Your task to perform on an android device: What's the weather going to be tomorrow? Image 0: 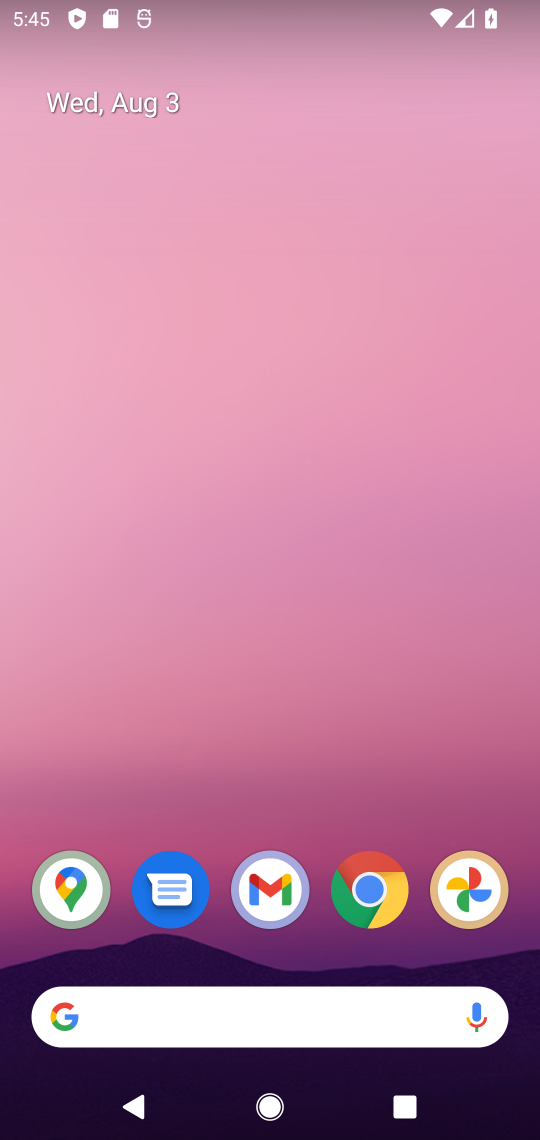
Step 0: drag from (274, 798) to (369, 11)
Your task to perform on an android device: What's the weather going to be tomorrow? Image 1: 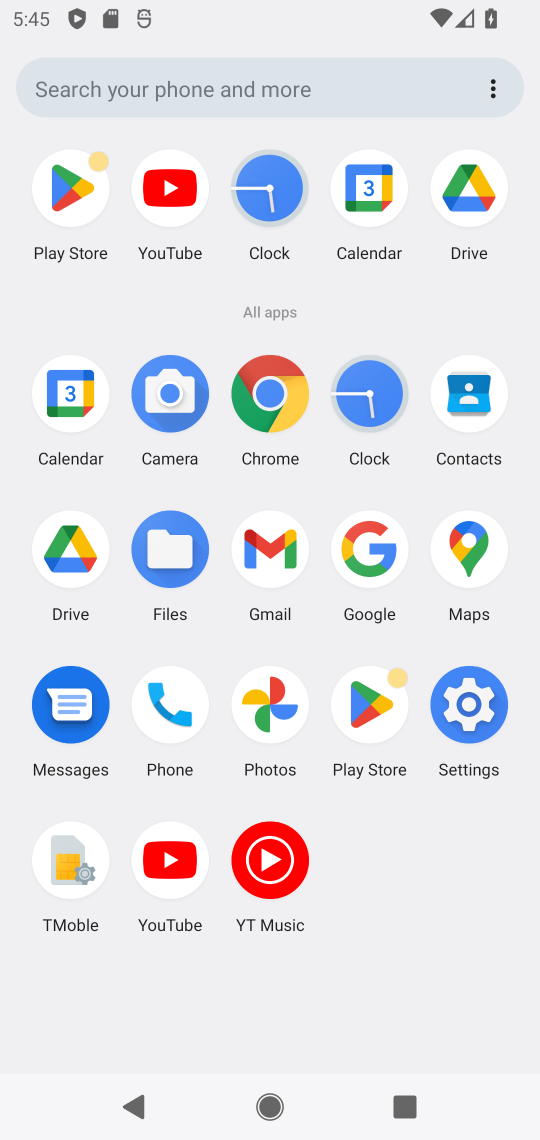
Step 1: click (357, 547)
Your task to perform on an android device: What's the weather going to be tomorrow? Image 2: 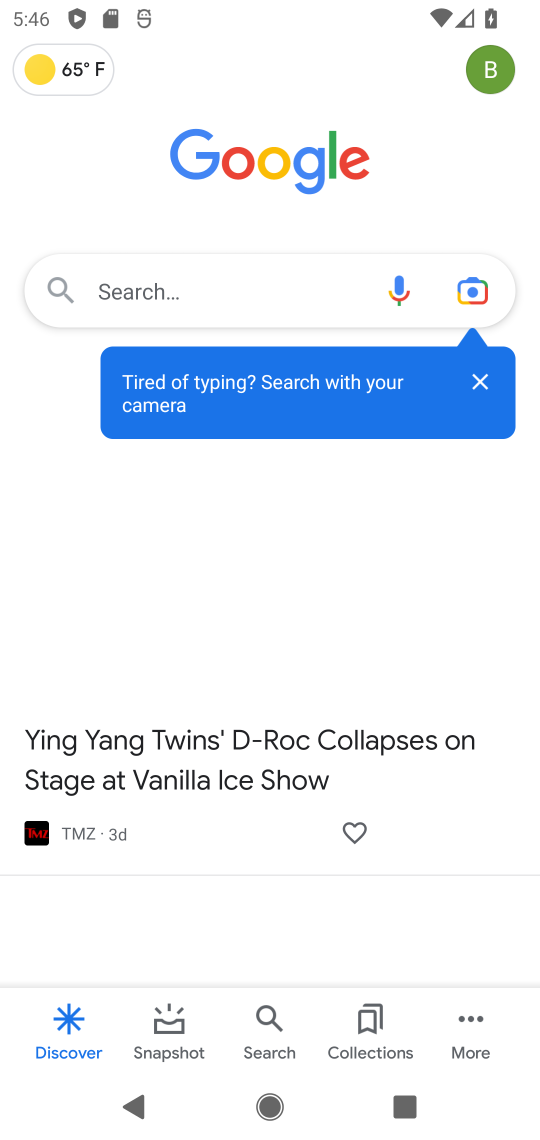
Step 2: click (237, 288)
Your task to perform on an android device: What's the weather going to be tomorrow? Image 3: 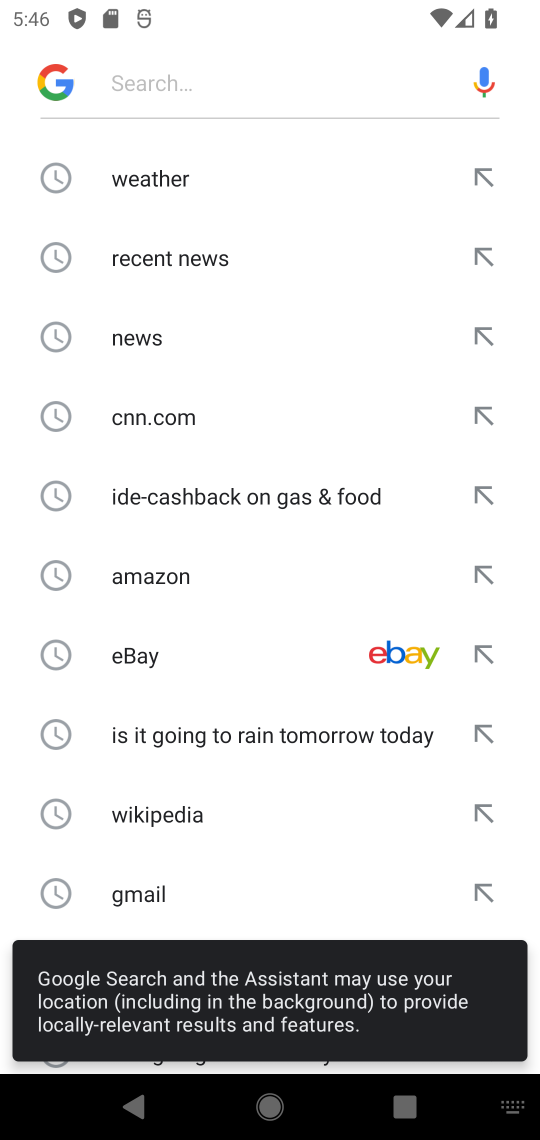
Step 3: click (156, 175)
Your task to perform on an android device: What's the weather going to be tomorrow? Image 4: 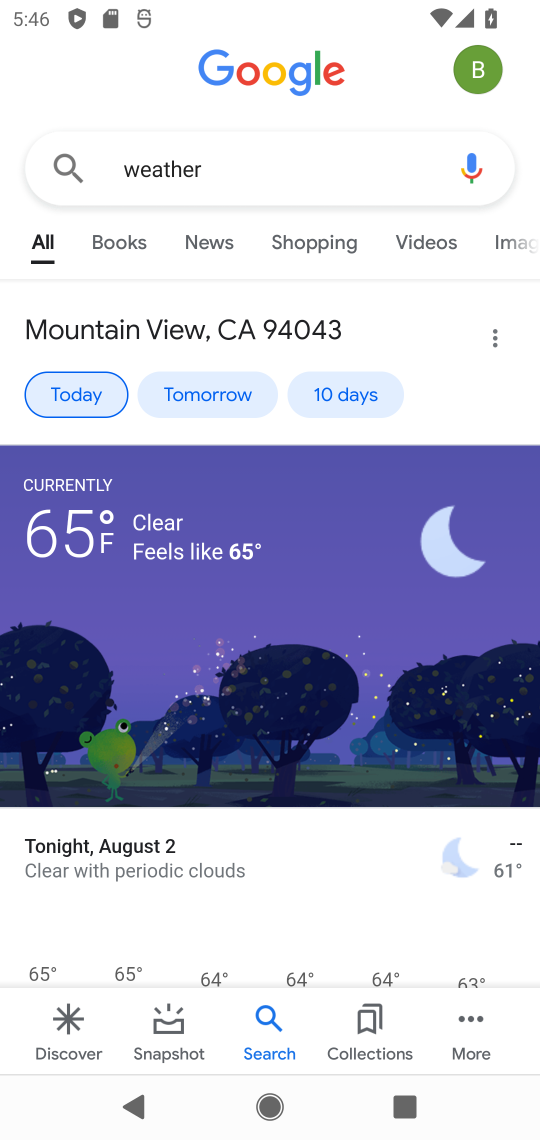
Step 4: click (229, 394)
Your task to perform on an android device: What's the weather going to be tomorrow? Image 5: 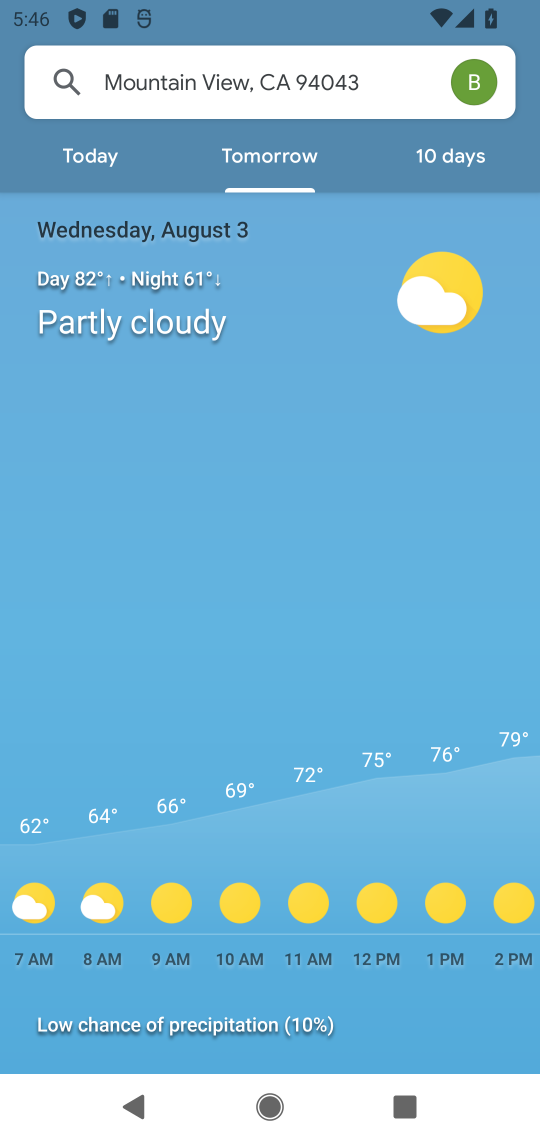
Step 5: task complete